Your task to perform on an android device: Show the shopping cart on bestbuy.com. Add beats solo 3 to the cart on bestbuy.com Image 0: 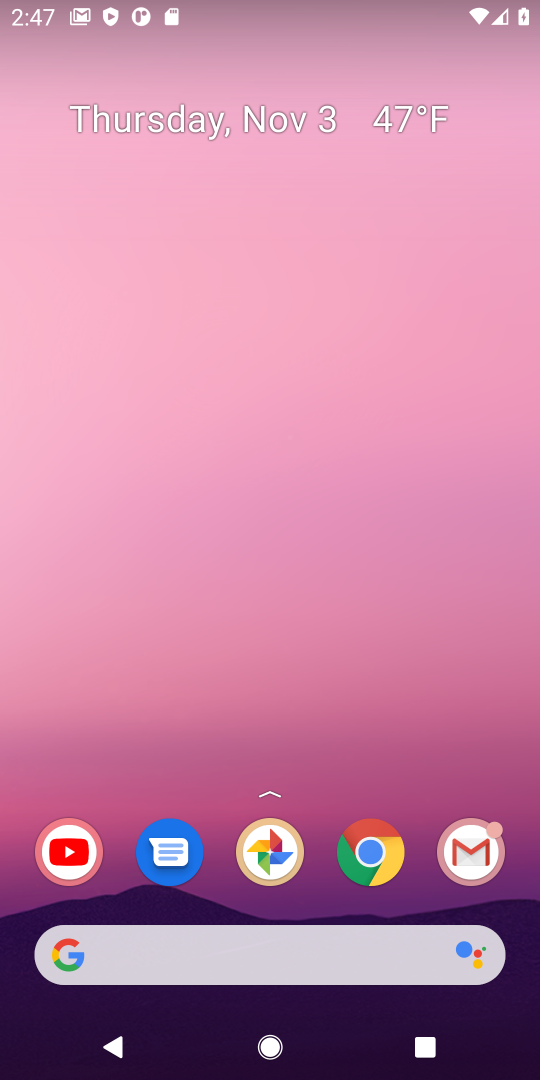
Step 0: click (377, 851)
Your task to perform on an android device: Show the shopping cart on bestbuy.com. Add beats solo 3 to the cart on bestbuy.com Image 1: 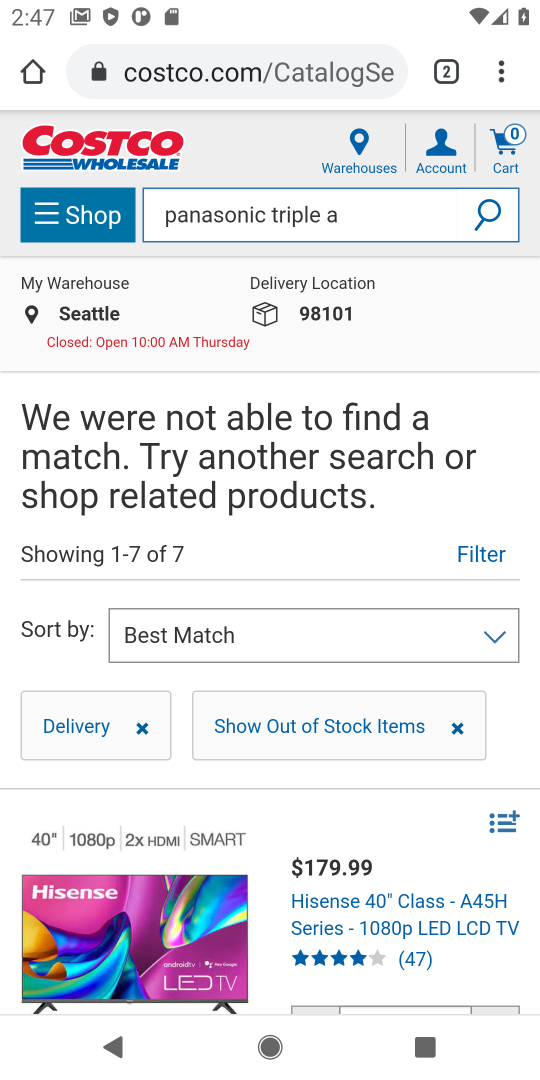
Step 1: click (268, 71)
Your task to perform on an android device: Show the shopping cart on bestbuy.com. Add beats solo 3 to the cart on bestbuy.com Image 2: 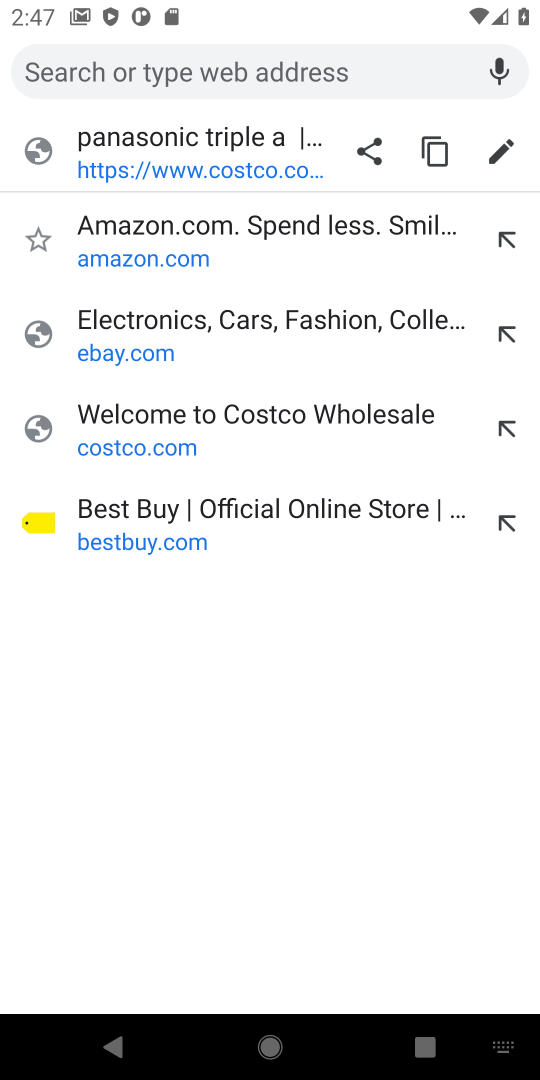
Step 2: click (137, 532)
Your task to perform on an android device: Show the shopping cart on bestbuy.com. Add beats solo 3 to the cart on bestbuy.com Image 3: 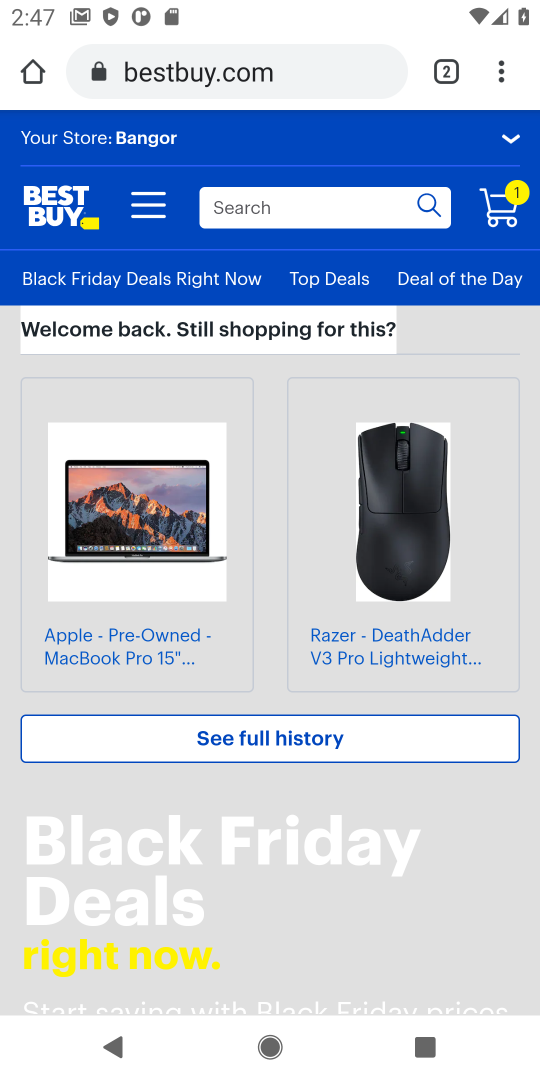
Step 3: click (510, 204)
Your task to perform on an android device: Show the shopping cart on bestbuy.com. Add beats solo 3 to the cart on bestbuy.com Image 4: 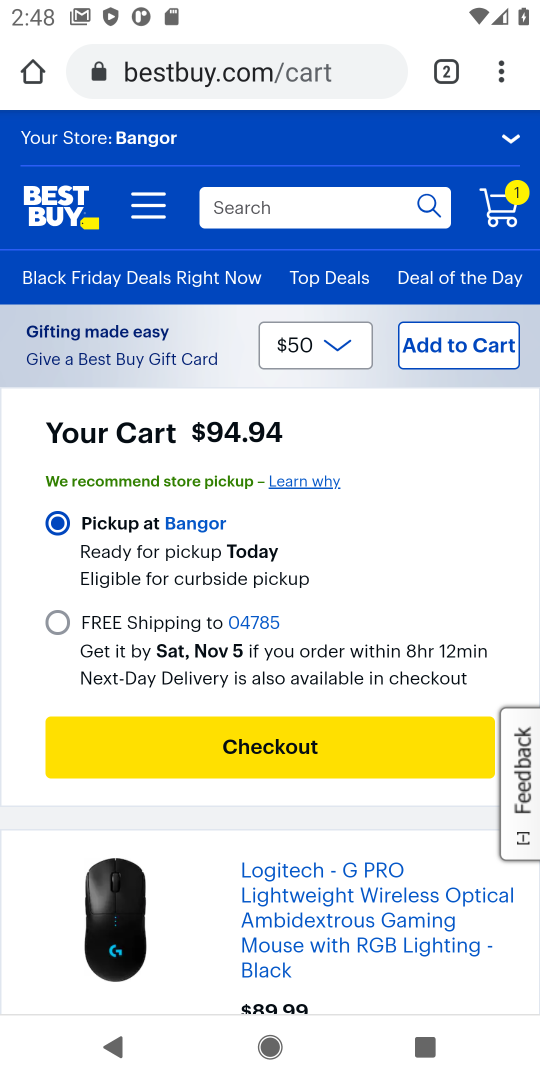
Step 4: click (239, 207)
Your task to perform on an android device: Show the shopping cart on bestbuy.com. Add beats solo 3 to the cart on bestbuy.com Image 5: 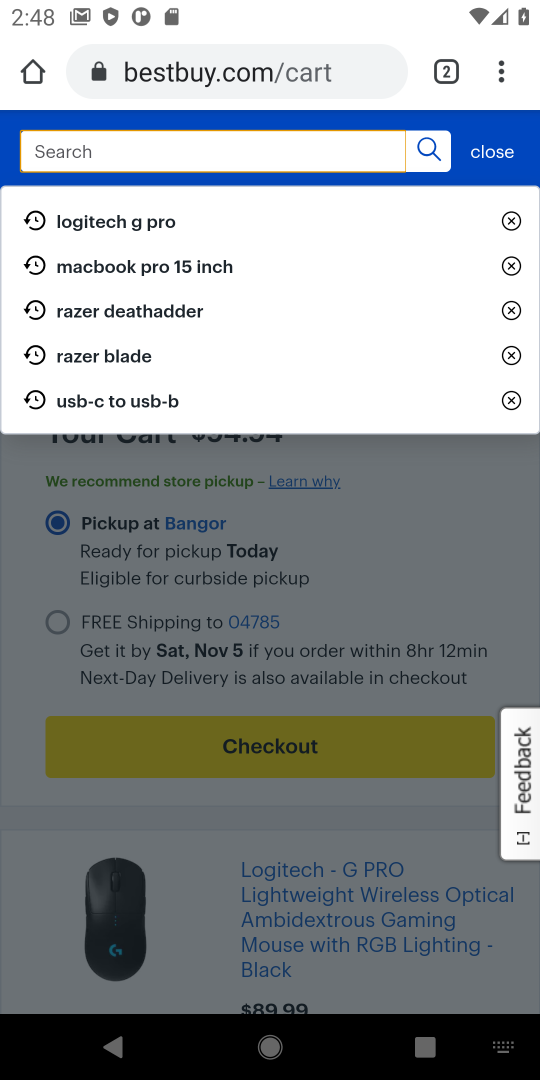
Step 5: type " beats solo 3"
Your task to perform on an android device: Show the shopping cart on bestbuy.com. Add beats solo 3 to the cart on bestbuy.com Image 6: 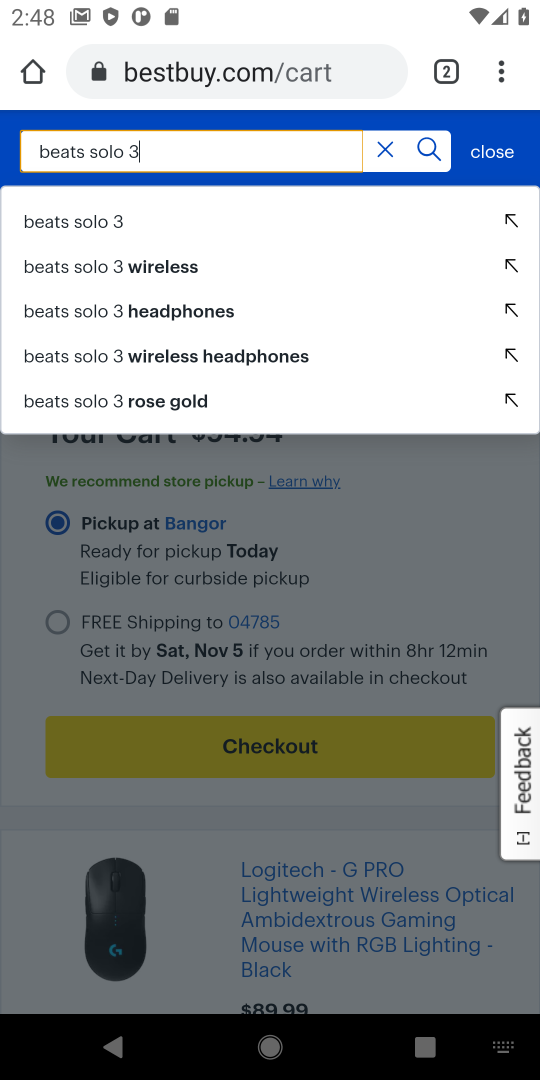
Step 6: click (38, 236)
Your task to perform on an android device: Show the shopping cart on bestbuy.com. Add beats solo 3 to the cart on bestbuy.com Image 7: 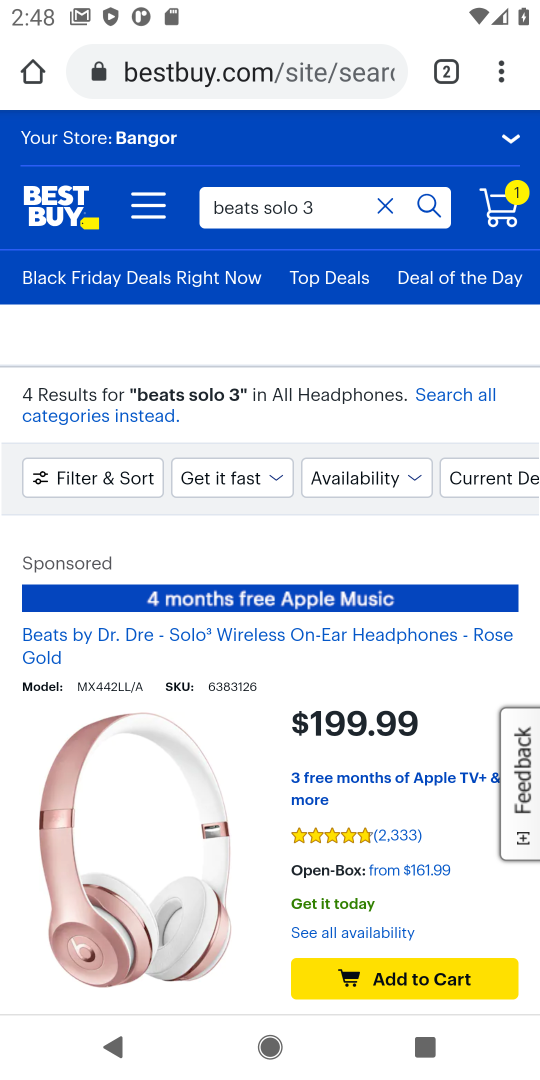
Step 7: click (168, 870)
Your task to perform on an android device: Show the shopping cart on bestbuy.com. Add beats solo 3 to the cart on bestbuy.com Image 8: 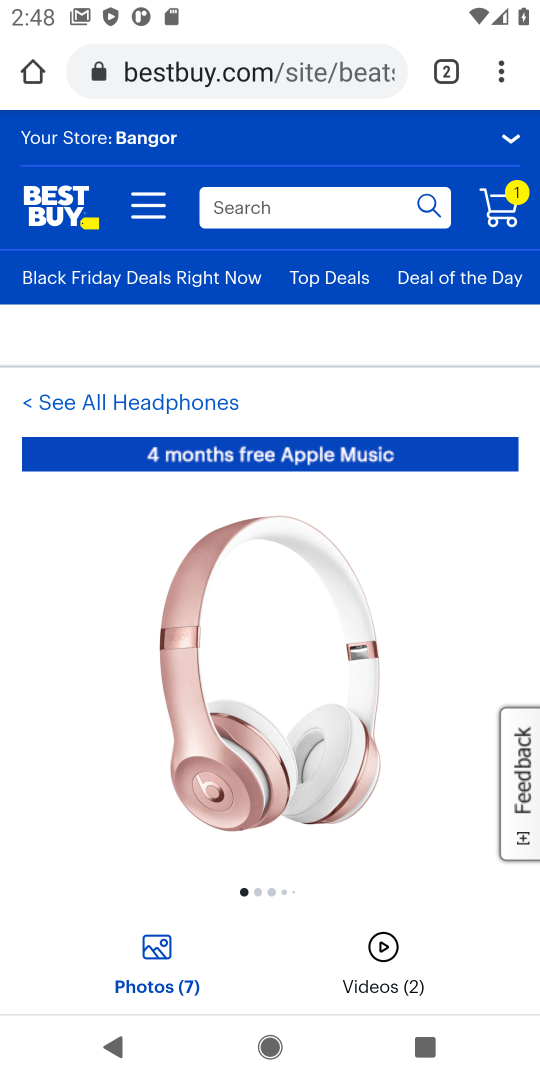
Step 8: drag from (300, 811) to (290, 217)
Your task to perform on an android device: Show the shopping cart on bestbuy.com. Add beats solo 3 to the cart on bestbuy.com Image 9: 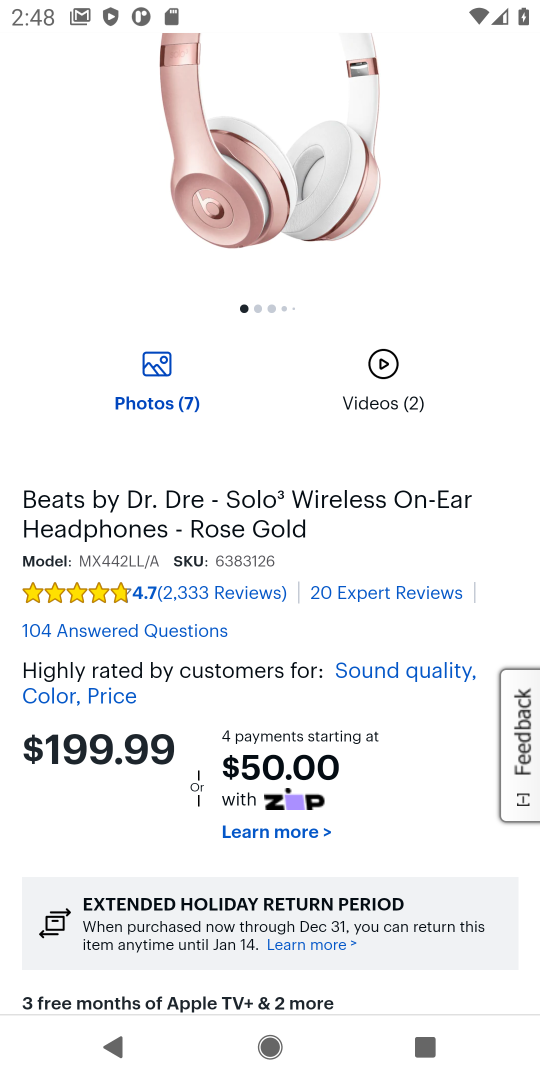
Step 9: drag from (320, 717) to (254, 167)
Your task to perform on an android device: Show the shopping cart on bestbuy.com. Add beats solo 3 to the cart on bestbuy.com Image 10: 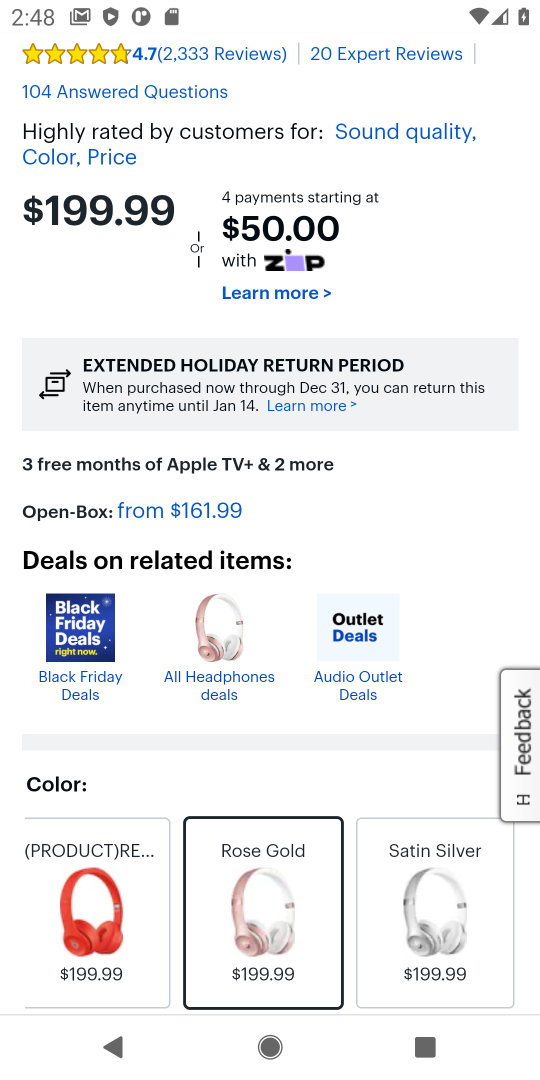
Step 10: drag from (264, 675) to (231, 102)
Your task to perform on an android device: Show the shopping cart on bestbuy.com. Add beats solo 3 to the cart on bestbuy.com Image 11: 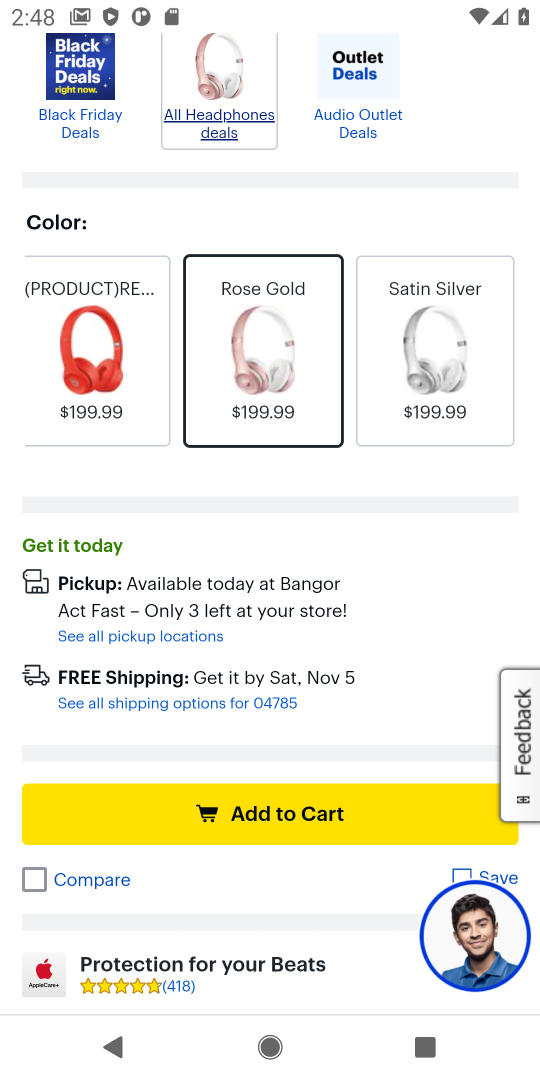
Step 11: click (250, 810)
Your task to perform on an android device: Show the shopping cart on bestbuy.com. Add beats solo 3 to the cart on bestbuy.com Image 12: 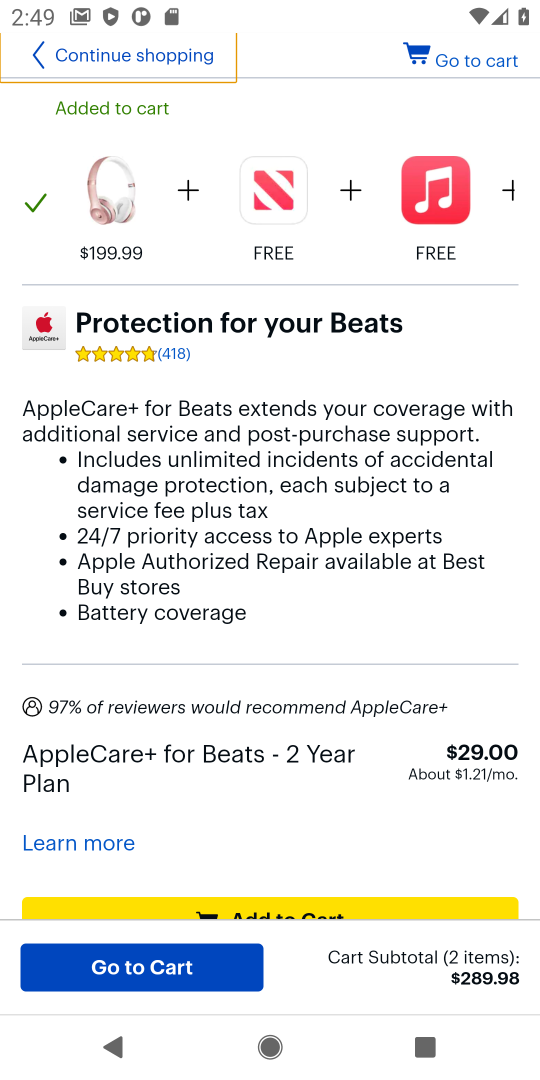
Step 12: task complete